Your task to perform on an android device: Do I have any events this weekend? Image 0: 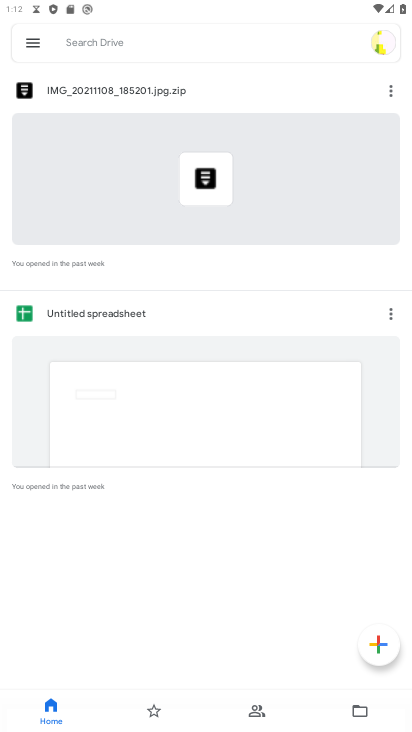
Step 0: press home button
Your task to perform on an android device: Do I have any events this weekend? Image 1: 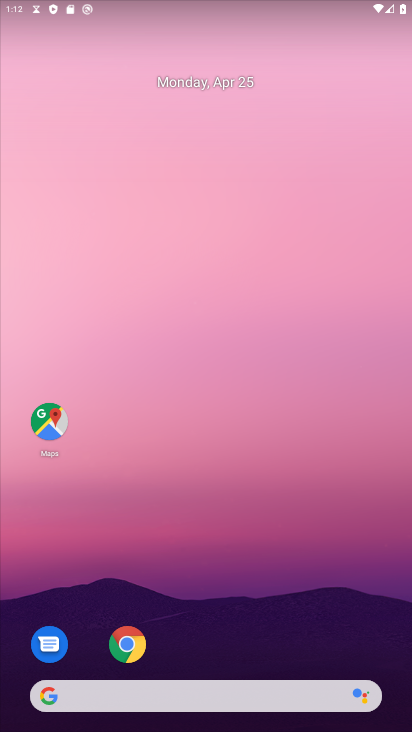
Step 1: drag from (315, 661) to (335, 2)
Your task to perform on an android device: Do I have any events this weekend? Image 2: 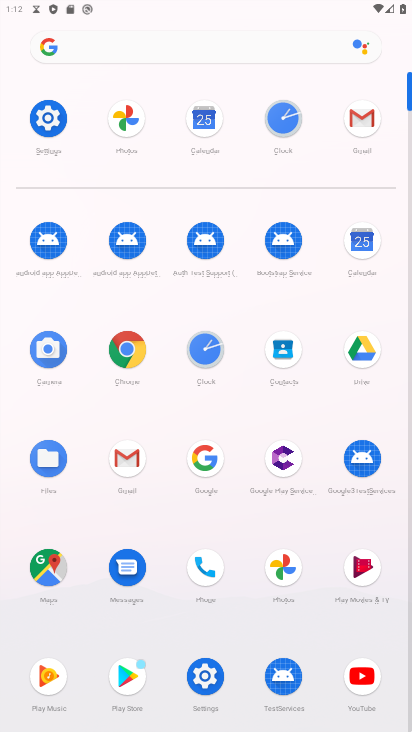
Step 2: click (199, 115)
Your task to perform on an android device: Do I have any events this weekend? Image 3: 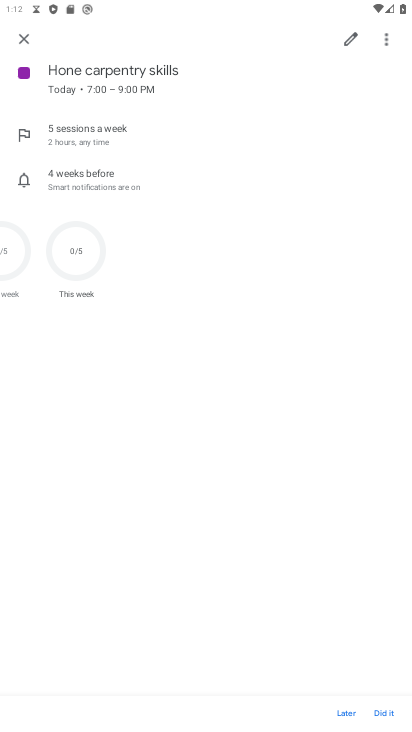
Step 3: click (27, 45)
Your task to perform on an android device: Do I have any events this weekend? Image 4: 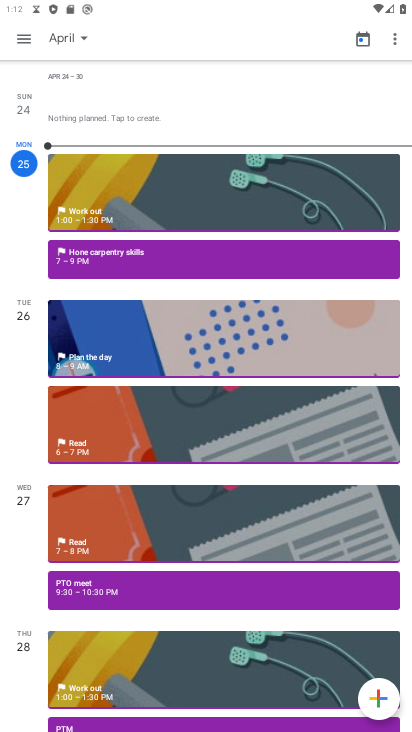
Step 4: click (82, 36)
Your task to perform on an android device: Do I have any events this weekend? Image 5: 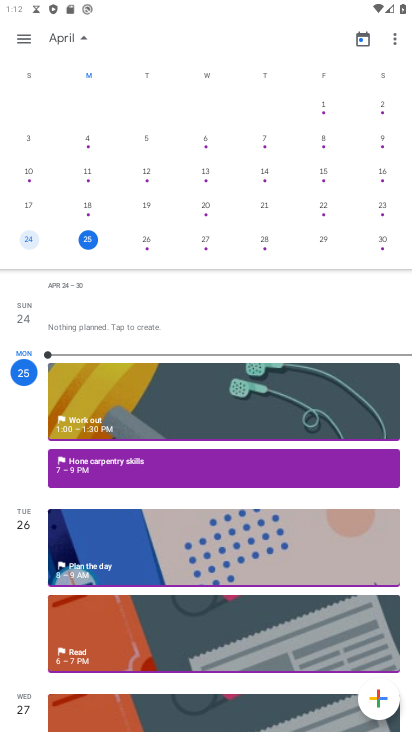
Step 5: click (384, 243)
Your task to perform on an android device: Do I have any events this weekend? Image 6: 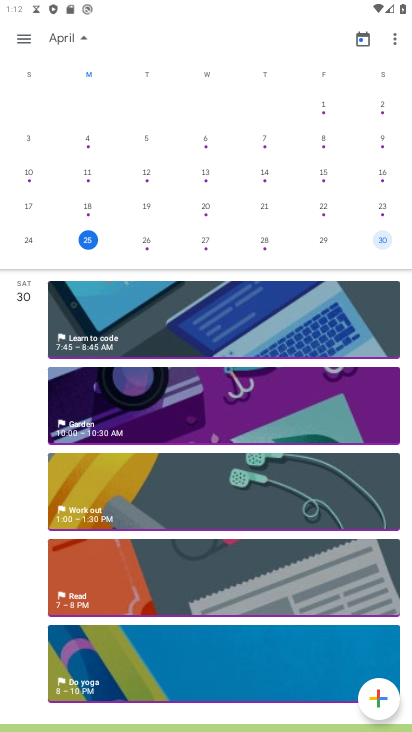
Step 6: click (78, 409)
Your task to perform on an android device: Do I have any events this weekend? Image 7: 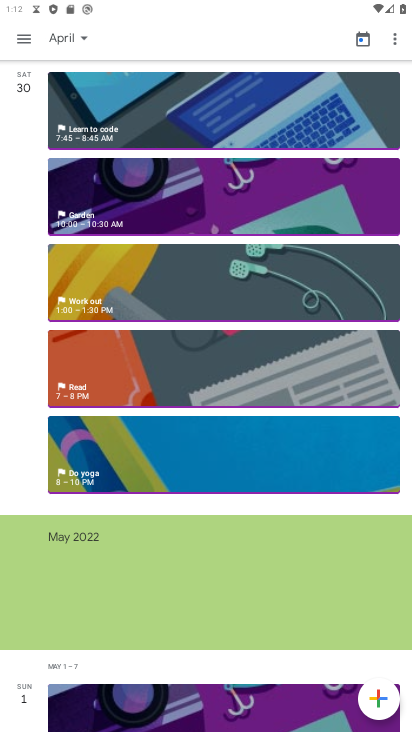
Step 7: click (159, 195)
Your task to perform on an android device: Do I have any events this weekend? Image 8: 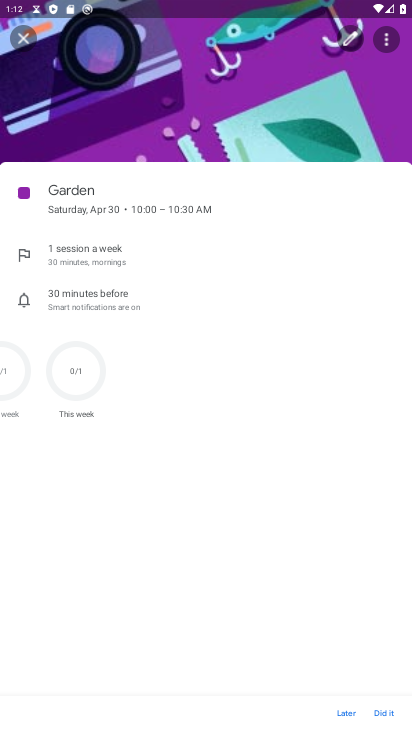
Step 8: task complete